Your task to perform on an android device: find snoozed emails in the gmail app Image 0: 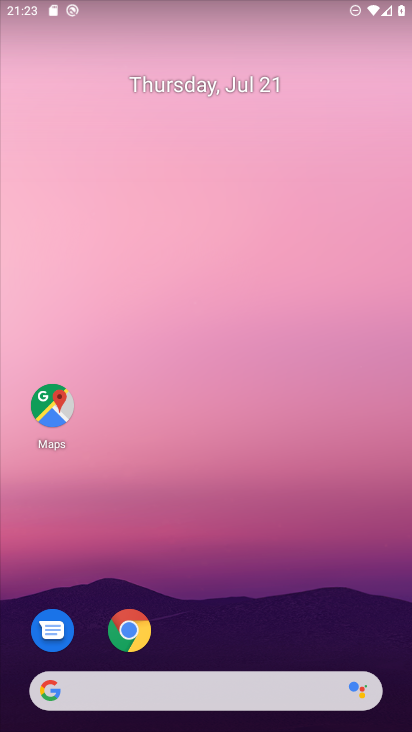
Step 0: drag from (384, 591) to (288, 46)
Your task to perform on an android device: find snoozed emails in the gmail app Image 1: 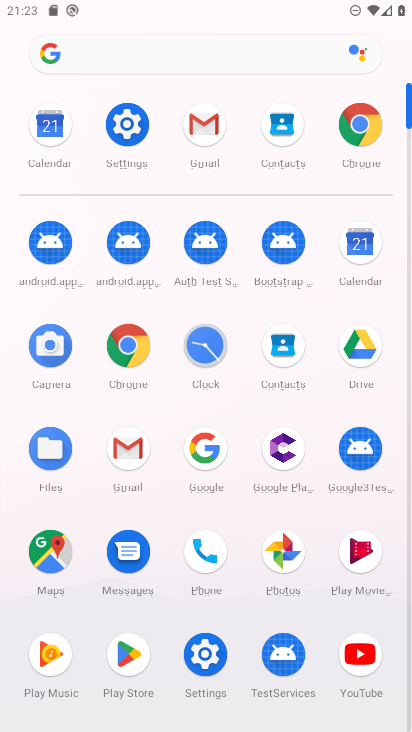
Step 1: click (213, 118)
Your task to perform on an android device: find snoozed emails in the gmail app Image 2: 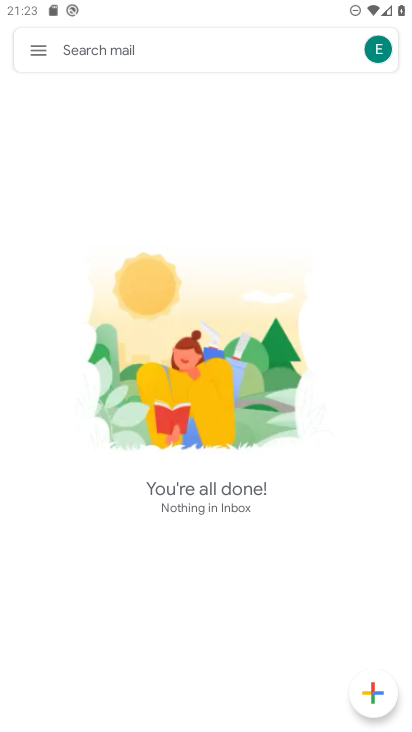
Step 2: click (41, 53)
Your task to perform on an android device: find snoozed emails in the gmail app Image 3: 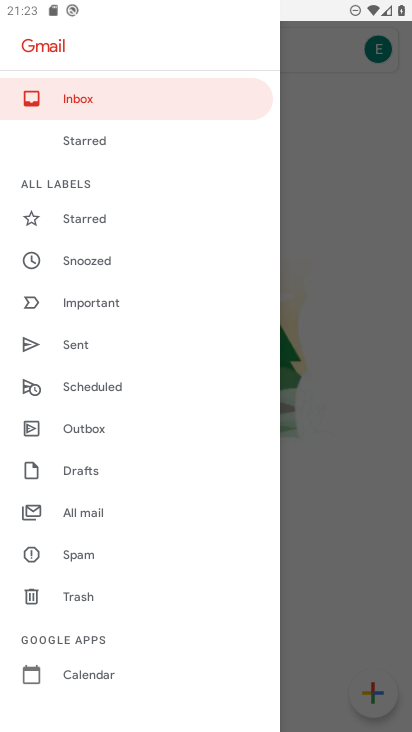
Step 3: click (87, 245)
Your task to perform on an android device: find snoozed emails in the gmail app Image 4: 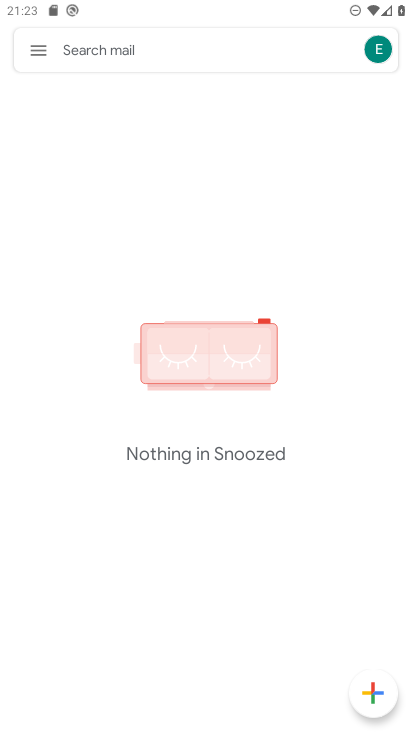
Step 4: task complete